Your task to perform on an android device: add a contact in the contacts app Image 0: 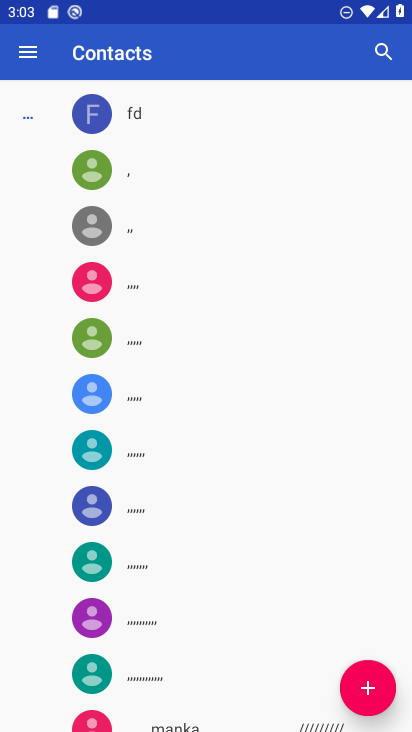
Step 0: press home button
Your task to perform on an android device: add a contact in the contacts app Image 1: 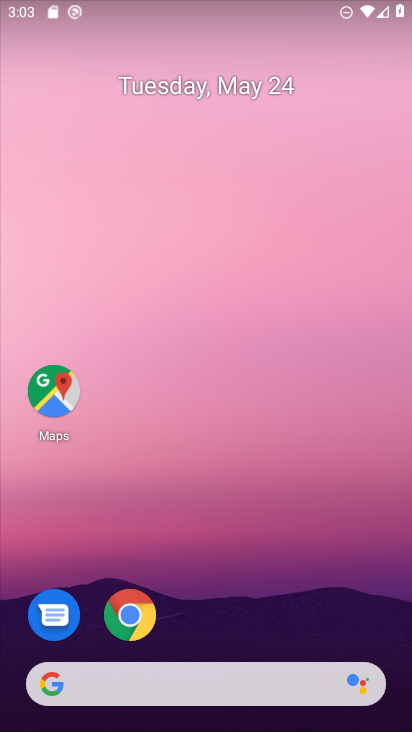
Step 1: drag from (229, 573) to (269, 177)
Your task to perform on an android device: add a contact in the contacts app Image 2: 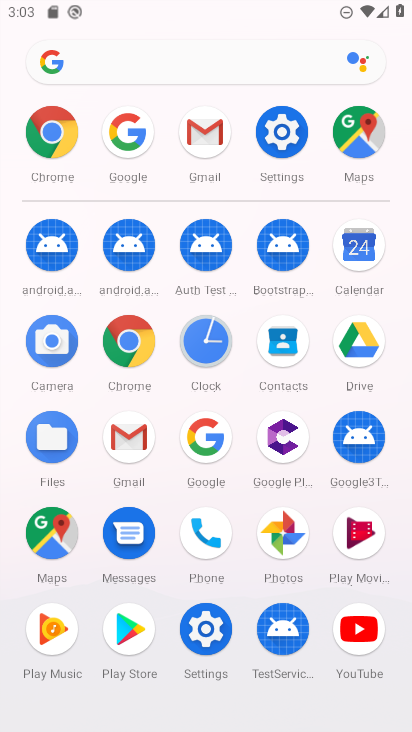
Step 2: click (279, 355)
Your task to perform on an android device: add a contact in the contacts app Image 3: 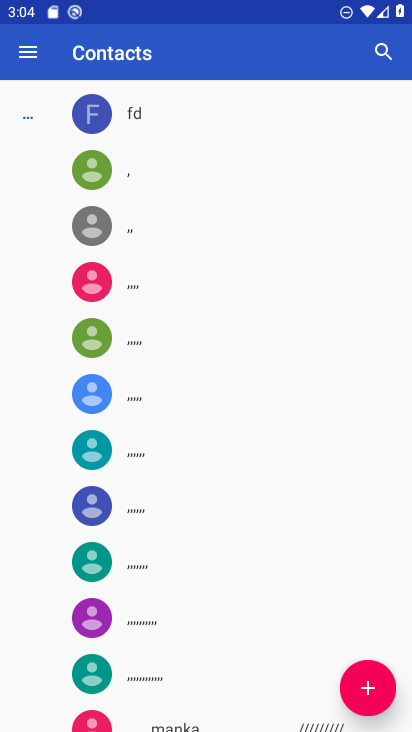
Step 3: click (381, 681)
Your task to perform on an android device: add a contact in the contacts app Image 4: 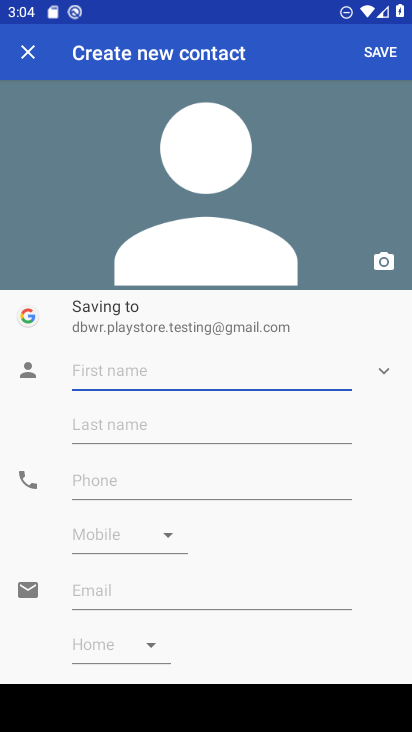
Step 4: type "uguguygui"
Your task to perform on an android device: add a contact in the contacts app Image 5: 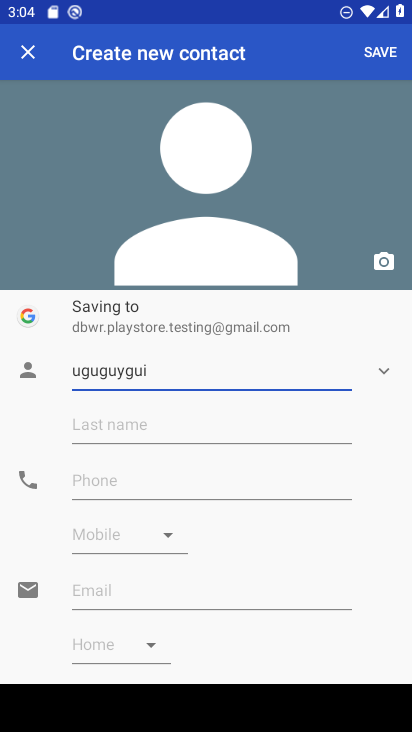
Step 5: click (198, 483)
Your task to perform on an android device: add a contact in the contacts app Image 6: 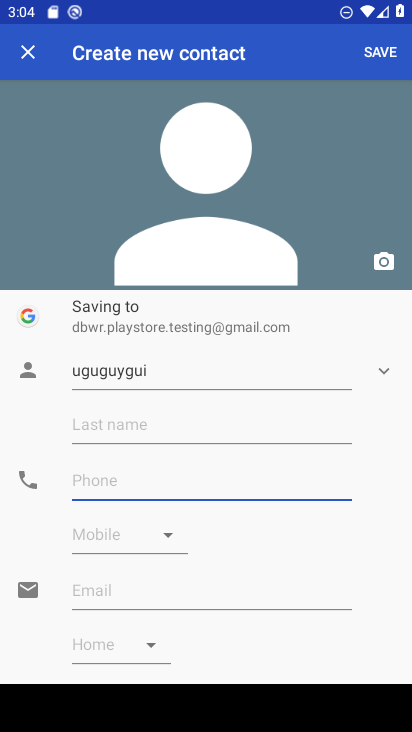
Step 6: type "89778657987"
Your task to perform on an android device: add a contact in the contacts app Image 7: 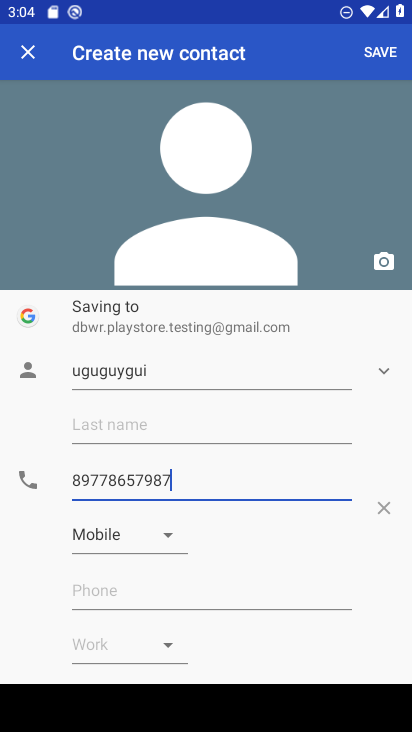
Step 7: click (372, 58)
Your task to perform on an android device: add a contact in the contacts app Image 8: 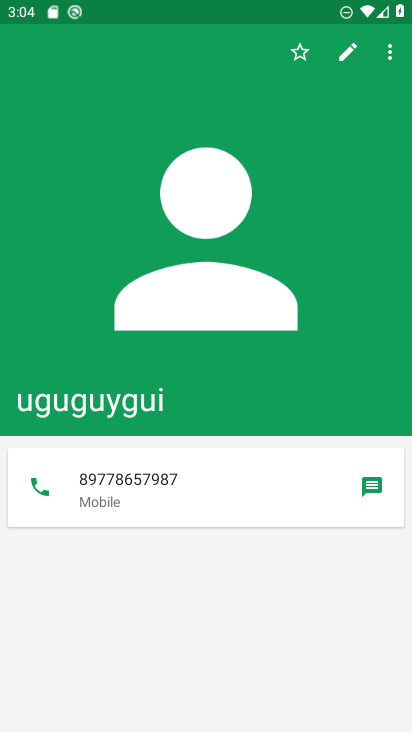
Step 8: task complete